Your task to perform on an android device: Open CNN.com Image 0: 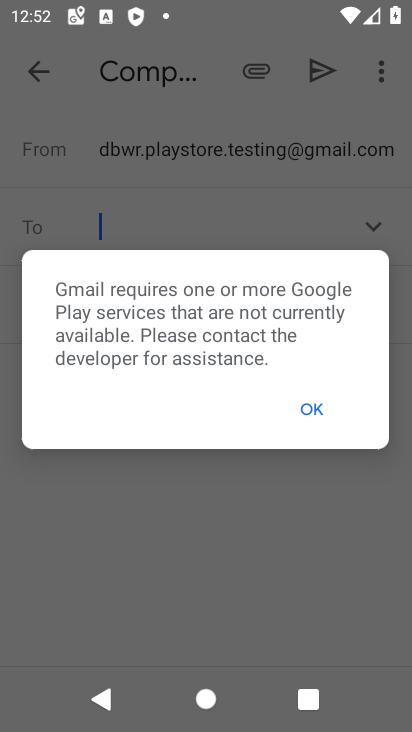
Step 0: press home button
Your task to perform on an android device: Open CNN.com Image 1: 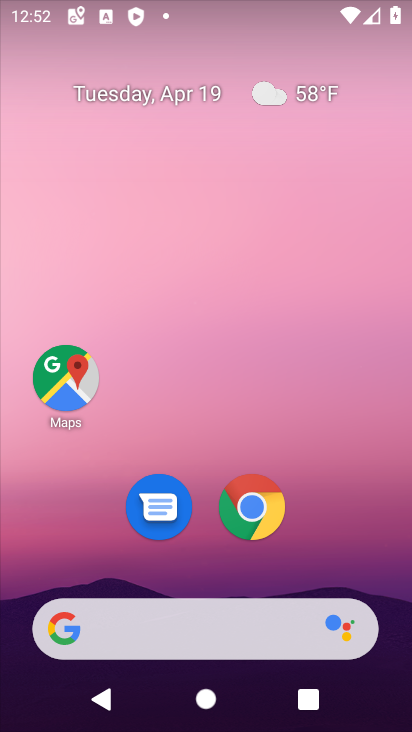
Step 1: click (209, 620)
Your task to perform on an android device: Open CNN.com Image 2: 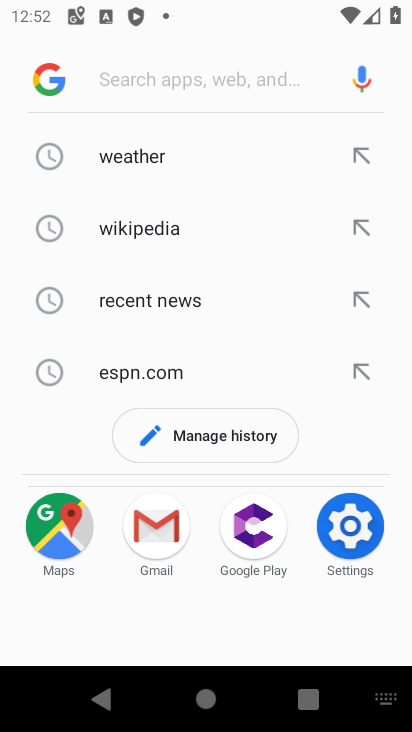
Step 2: type "CNN.com"
Your task to perform on an android device: Open CNN.com Image 3: 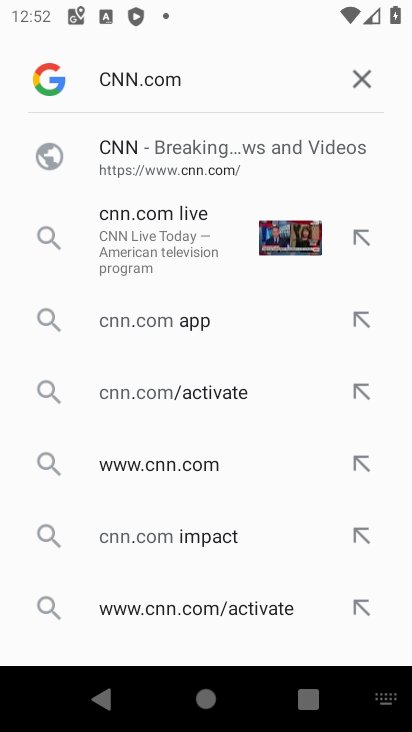
Step 3: click (172, 459)
Your task to perform on an android device: Open CNN.com Image 4: 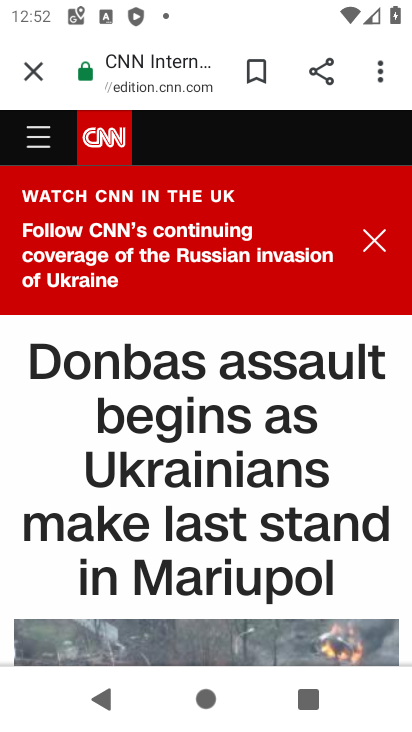
Step 4: task complete